Your task to perform on an android device: turn off improve location accuracy Image 0: 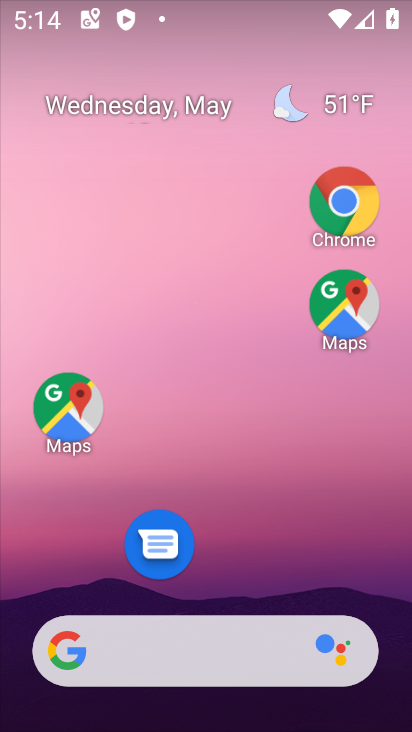
Step 0: drag from (236, 305) to (273, 142)
Your task to perform on an android device: turn off improve location accuracy Image 1: 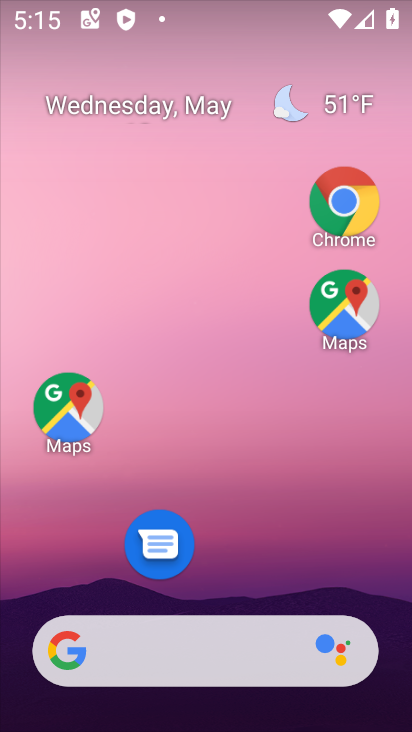
Step 1: drag from (225, 579) to (239, 192)
Your task to perform on an android device: turn off improve location accuracy Image 2: 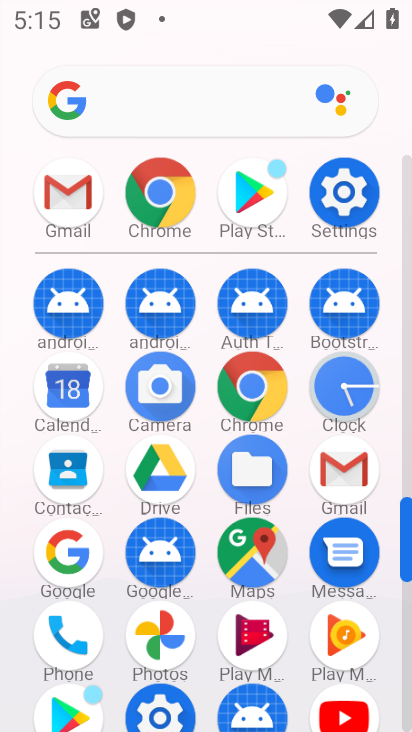
Step 2: click (334, 197)
Your task to perform on an android device: turn off improve location accuracy Image 3: 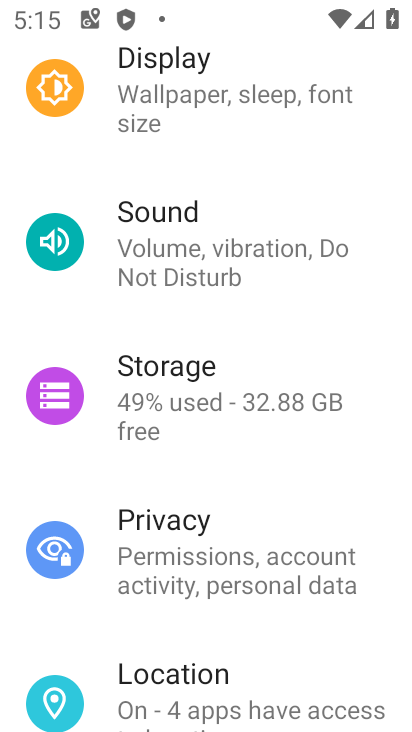
Step 3: click (160, 691)
Your task to perform on an android device: turn off improve location accuracy Image 4: 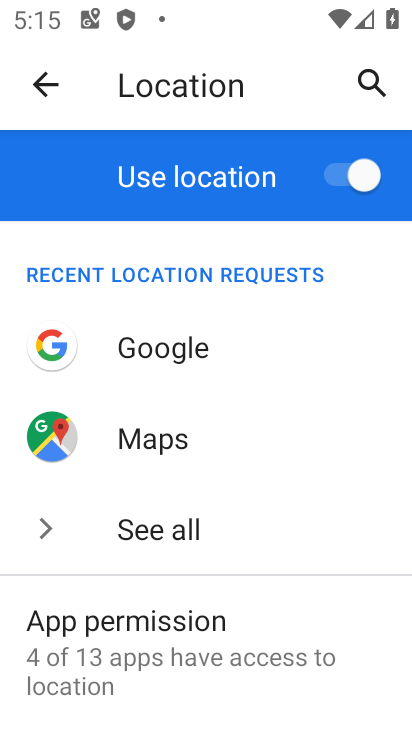
Step 4: drag from (208, 625) to (224, 327)
Your task to perform on an android device: turn off improve location accuracy Image 5: 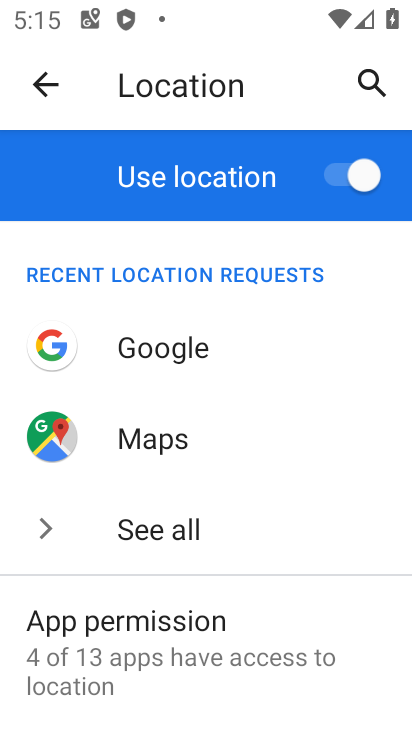
Step 5: drag from (168, 617) to (223, 322)
Your task to perform on an android device: turn off improve location accuracy Image 6: 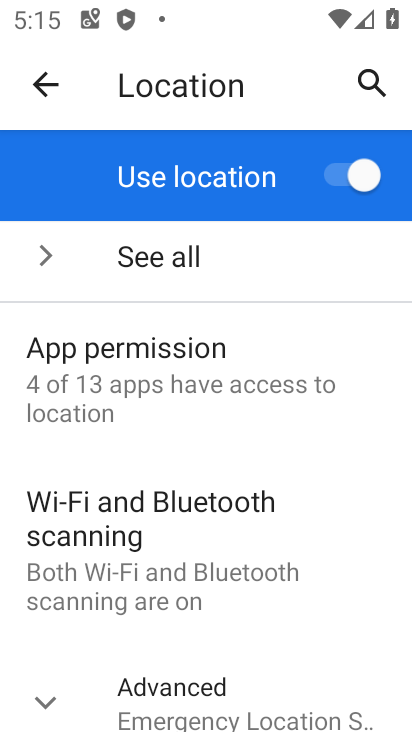
Step 6: drag from (171, 603) to (192, 272)
Your task to perform on an android device: turn off improve location accuracy Image 7: 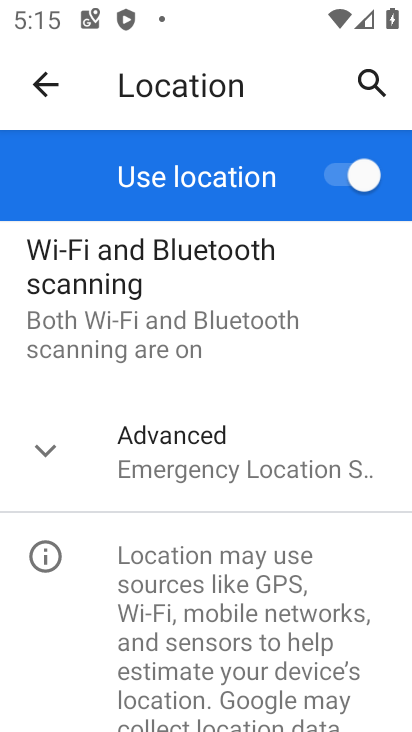
Step 7: click (166, 475)
Your task to perform on an android device: turn off improve location accuracy Image 8: 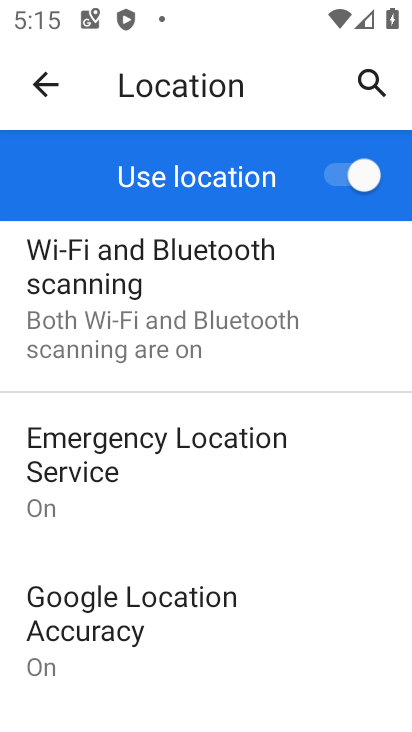
Step 8: drag from (137, 673) to (179, 490)
Your task to perform on an android device: turn off improve location accuracy Image 9: 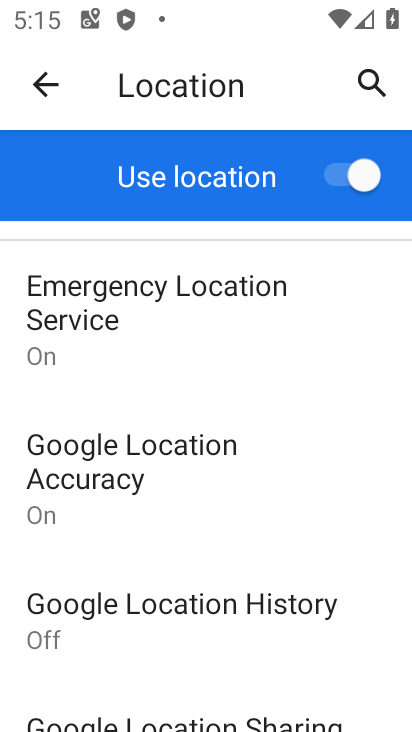
Step 9: click (124, 479)
Your task to perform on an android device: turn off improve location accuracy Image 10: 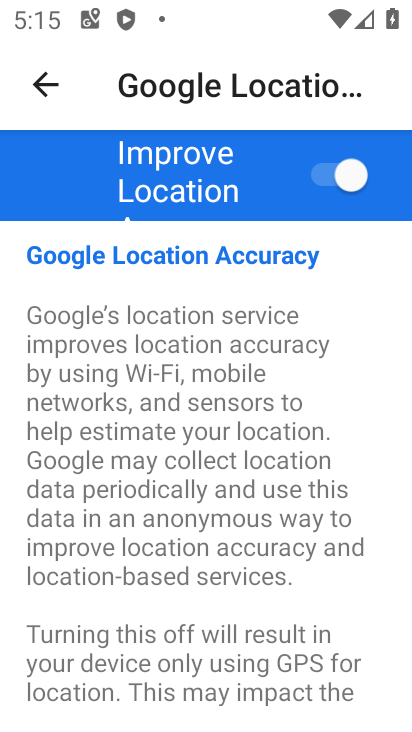
Step 10: click (315, 185)
Your task to perform on an android device: turn off improve location accuracy Image 11: 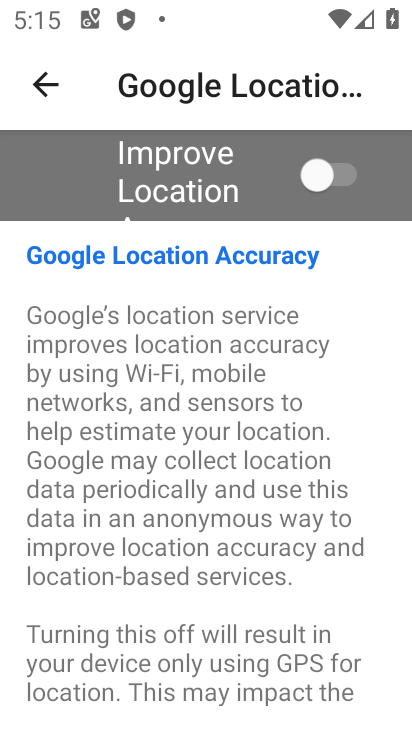
Step 11: task complete